Your task to perform on an android device: When is my next appointment? Image 0: 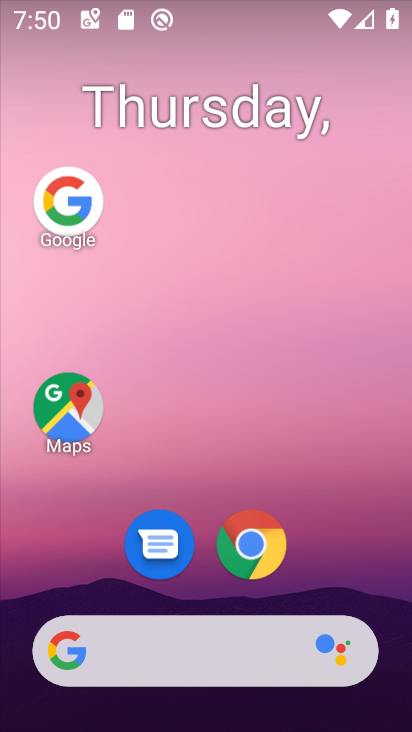
Step 0: drag from (250, 695) to (269, 203)
Your task to perform on an android device: When is my next appointment? Image 1: 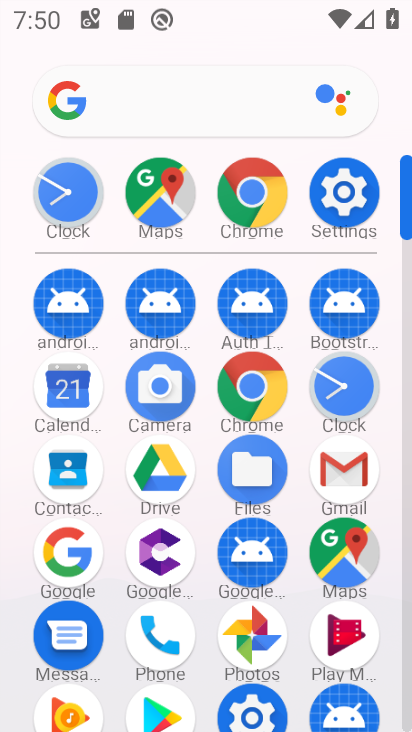
Step 1: click (77, 384)
Your task to perform on an android device: When is my next appointment? Image 2: 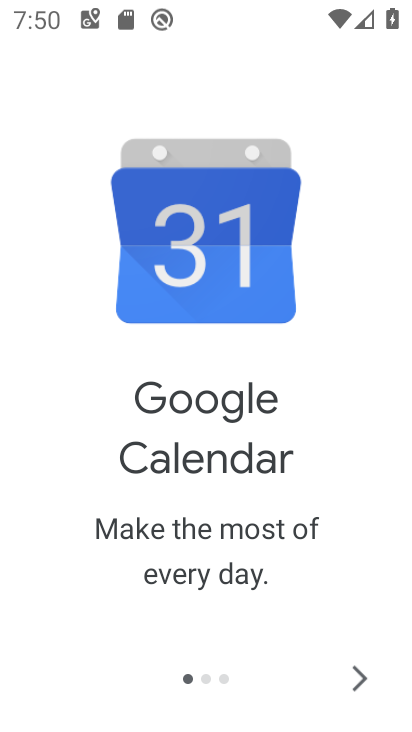
Step 2: click (358, 688)
Your task to perform on an android device: When is my next appointment? Image 3: 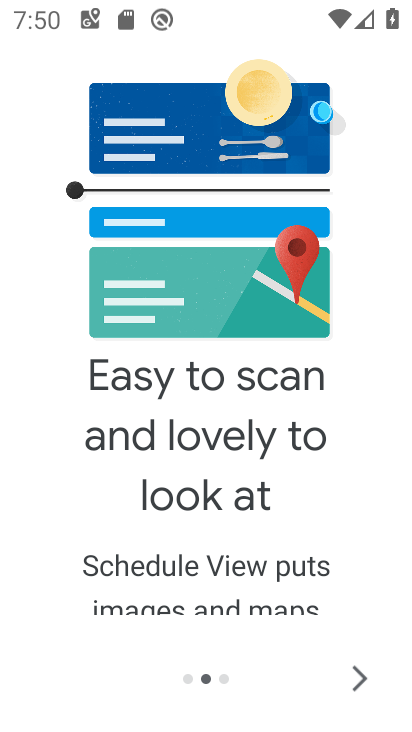
Step 3: click (365, 705)
Your task to perform on an android device: When is my next appointment? Image 4: 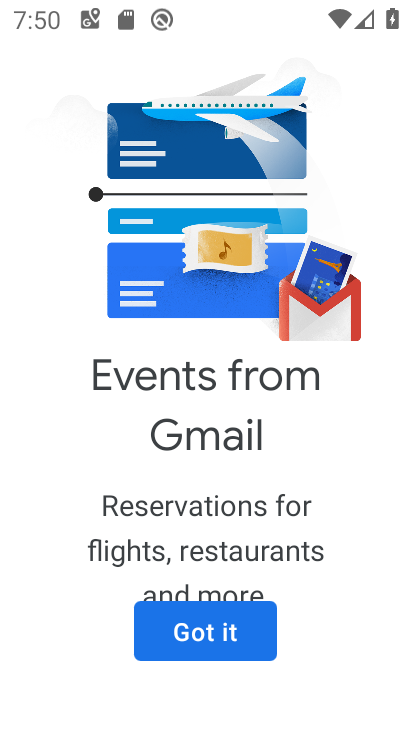
Step 4: click (244, 629)
Your task to perform on an android device: When is my next appointment? Image 5: 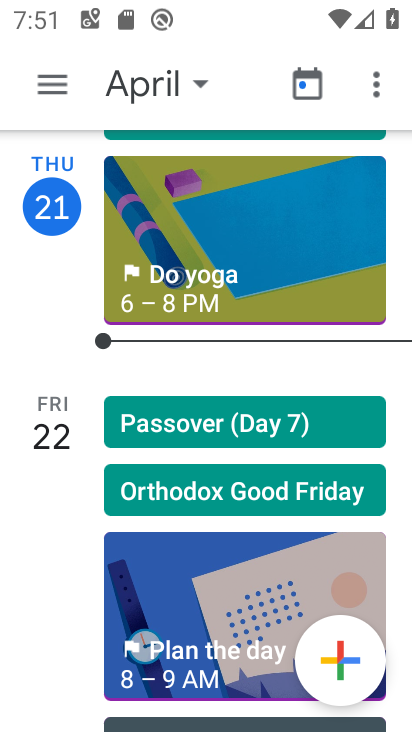
Step 5: click (43, 86)
Your task to perform on an android device: When is my next appointment? Image 6: 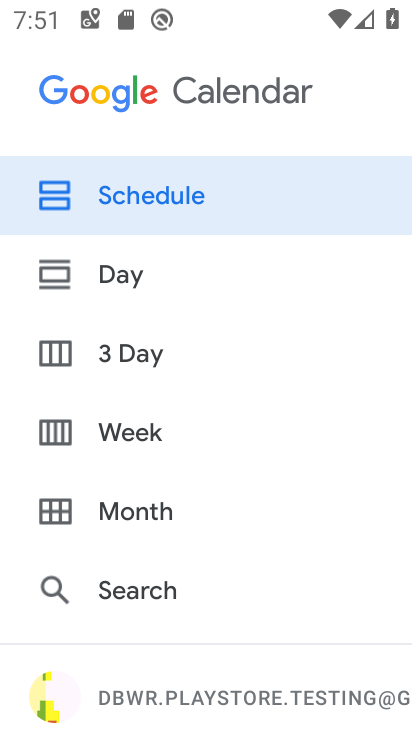
Step 6: click (145, 198)
Your task to perform on an android device: When is my next appointment? Image 7: 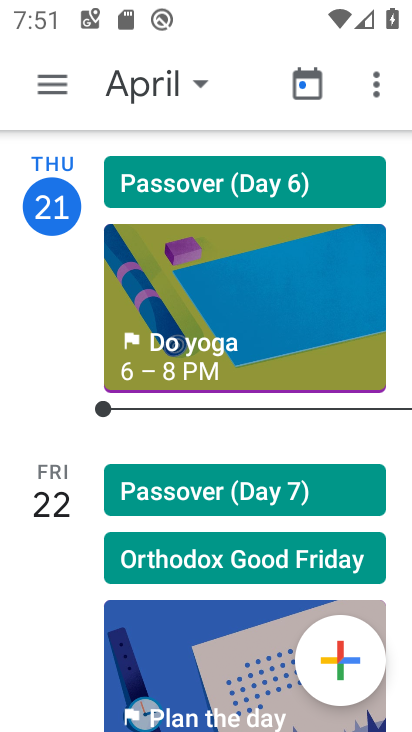
Step 7: task complete